Your task to perform on an android device: Open Yahoo.com Image 0: 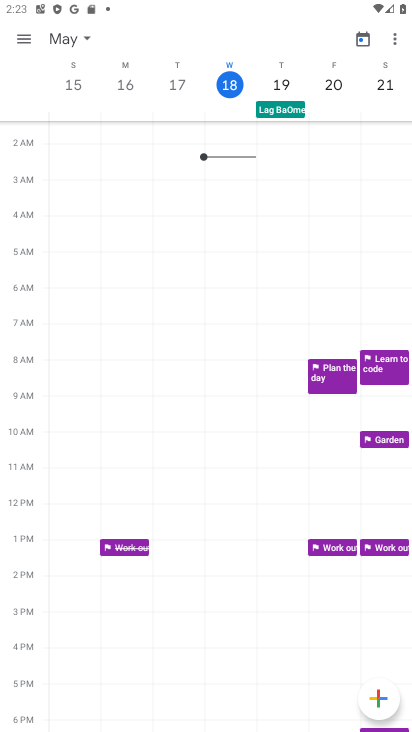
Step 0: press back button
Your task to perform on an android device: Open Yahoo.com Image 1: 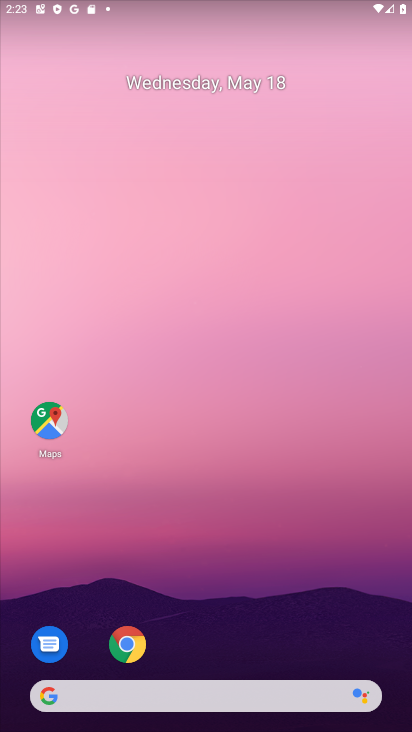
Step 1: click (127, 644)
Your task to perform on an android device: Open Yahoo.com Image 2: 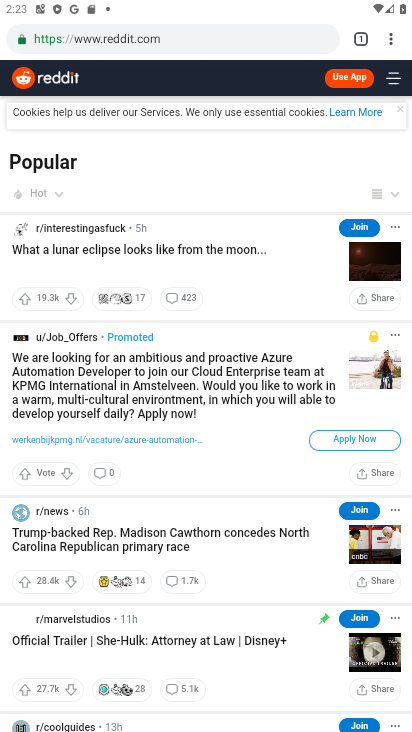
Step 2: click (294, 46)
Your task to perform on an android device: Open Yahoo.com Image 3: 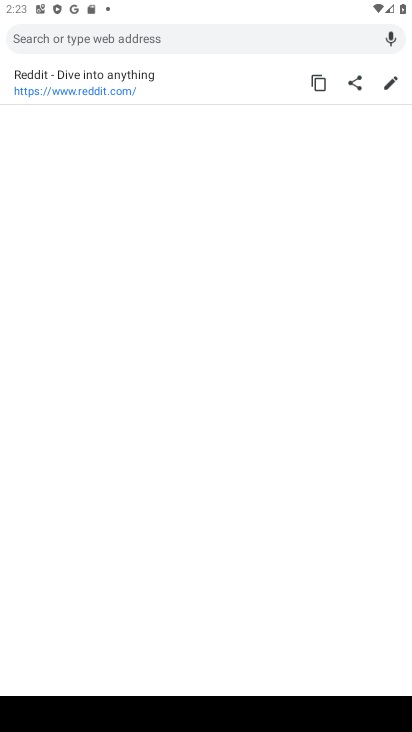
Step 3: type "Yahoo.com"
Your task to perform on an android device: Open Yahoo.com Image 4: 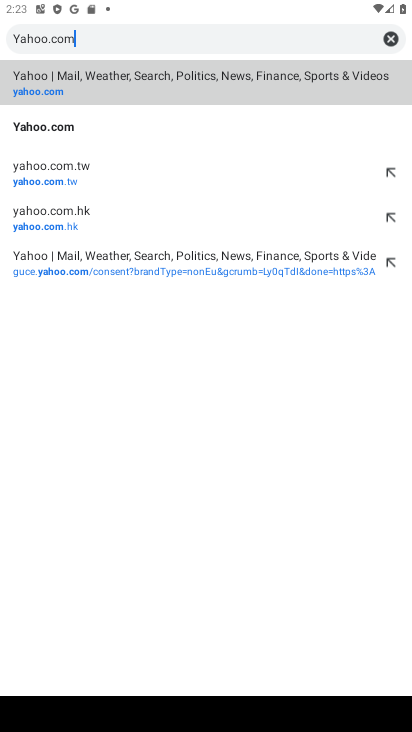
Step 4: click (56, 127)
Your task to perform on an android device: Open Yahoo.com Image 5: 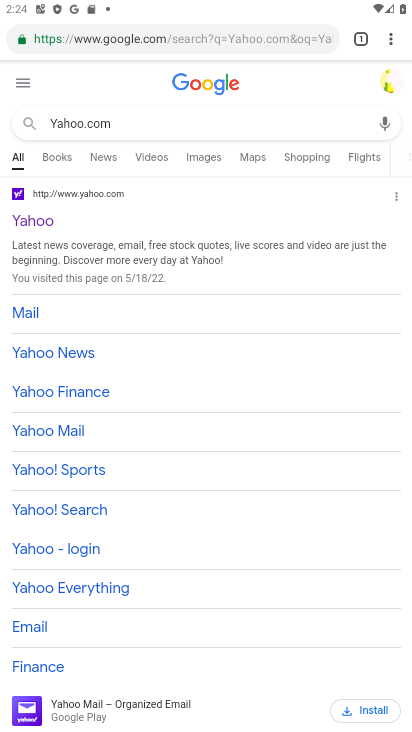
Step 5: click (31, 218)
Your task to perform on an android device: Open Yahoo.com Image 6: 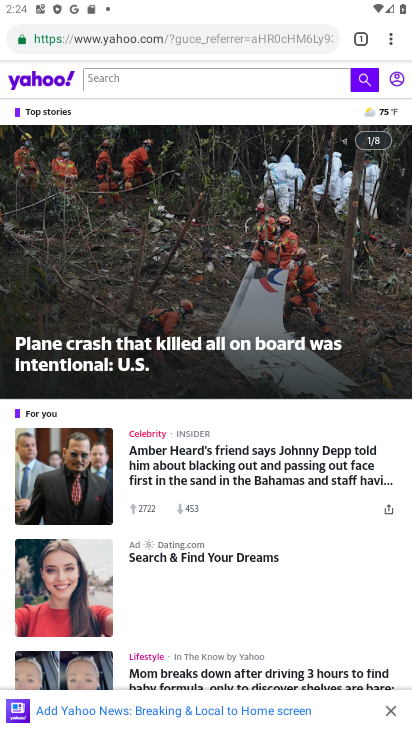
Step 6: task complete